Your task to perform on an android device: open sync settings in chrome Image 0: 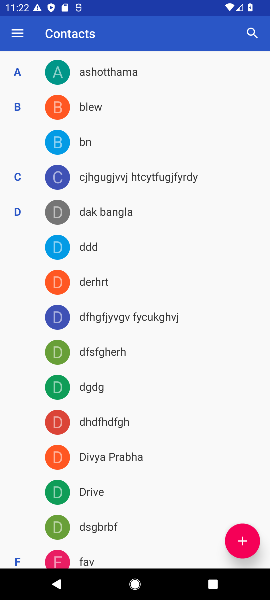
Step 0: press home button
Your task to perform on an android device: open sync settings in chrome Image 1: 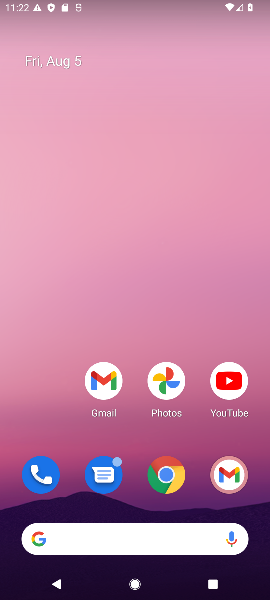
Step 1: click (174, 476)
Your task to perform on an android device: open sync settings in chrome Image 2: 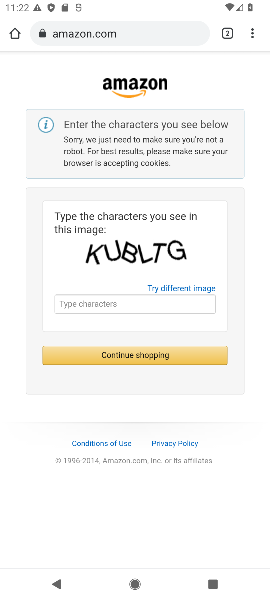
Step 2: click (253, 30)
Your task to perform on an android device: open sync settings in chrome Image 3: 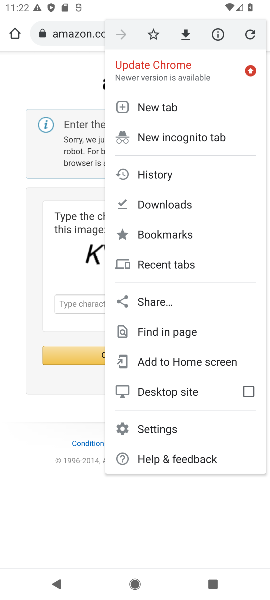
Step 3: click (153, 423)
Your task to perform on an android device: open sync settings in chrome Image 4: 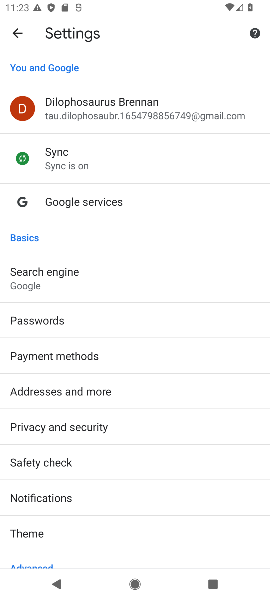
Step 4: click (79, 164)
Your task to perform on an android device: open sync settings in chrome Image 5: 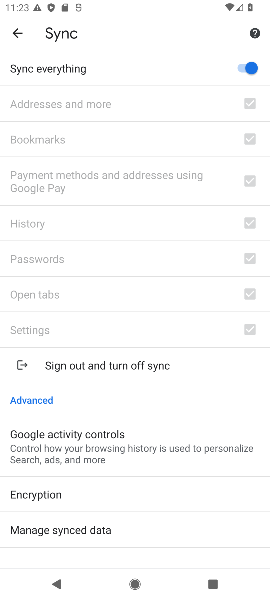
Step 5: task complete